Your task to perform on an android device: see creations saved in the google photos Image 0: 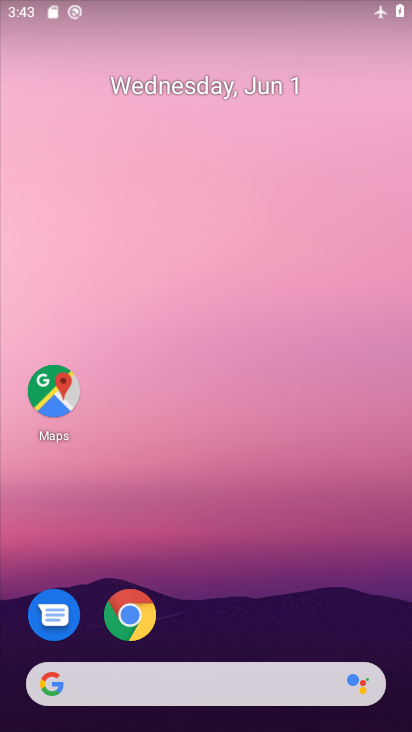
Step 0: drag from (252, 599) to (262, 121)
Your task to perform on an android device: see creations saved in the google photos Image 1: 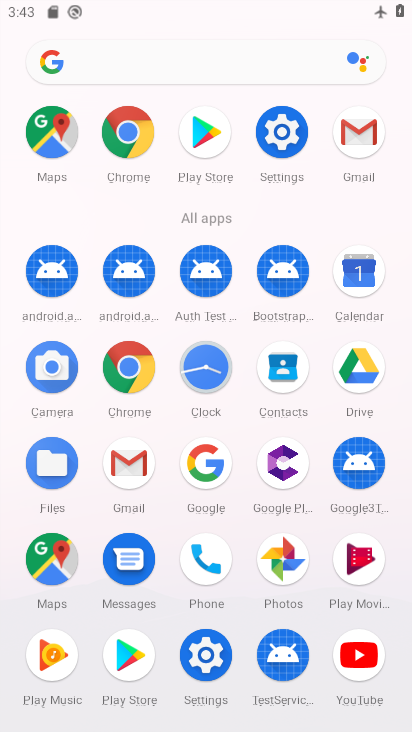
Step 1: click (283, 558)
Your task to perform on an android device: see creations saved in the google photos Image 2: 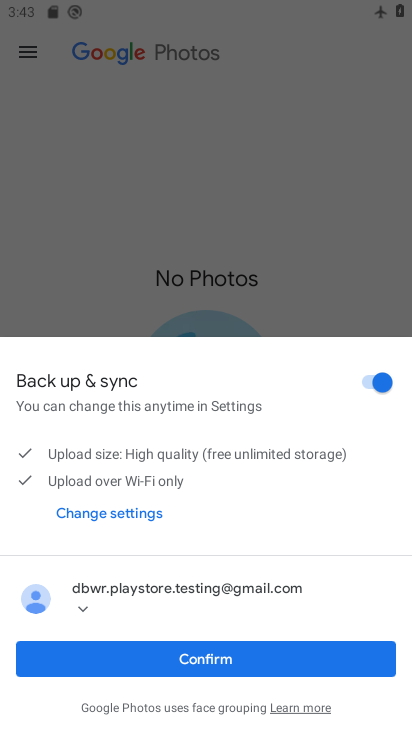
Step 2: click (216, 666)
Your task to perform on an android device: see creations saved in the google photos Image 3: 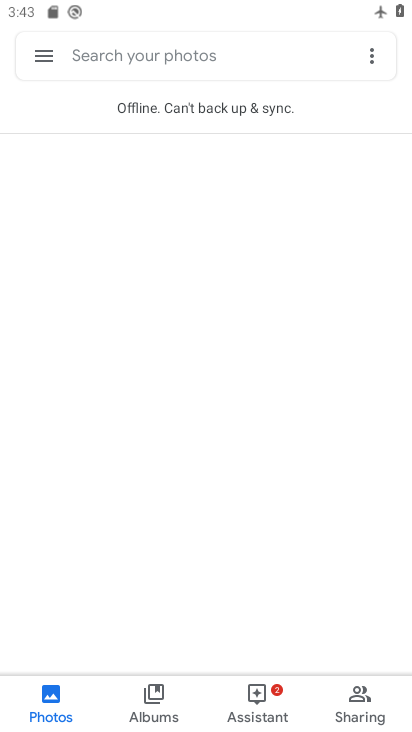
Step 3: click (293, 710)
Your task to perform on an android device: see creations saved in the google photos Image 4: 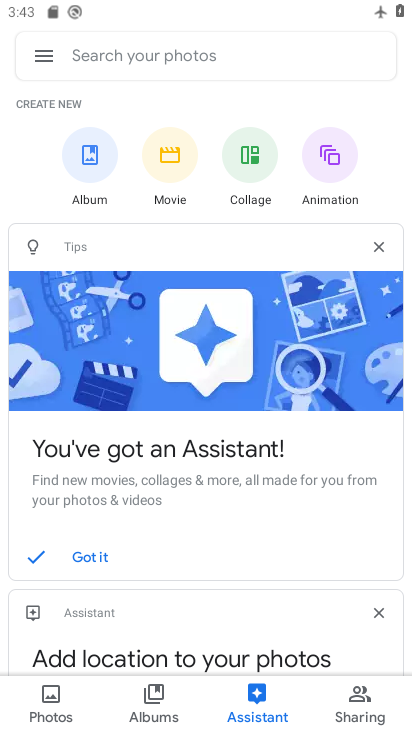
Step 4: task complete